Your task to perform on an android device: Open Amazon Image 0: 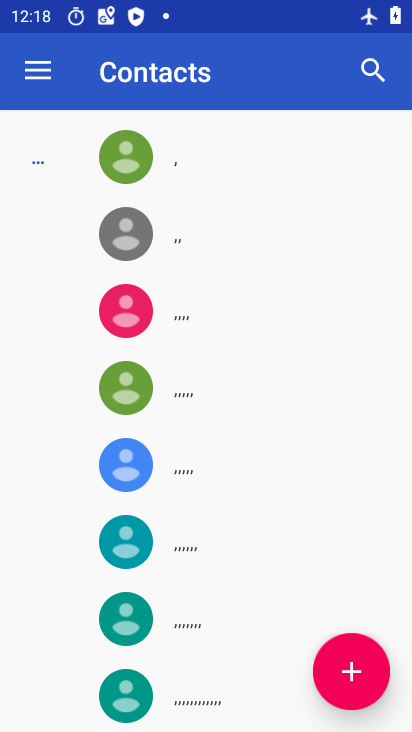
Step 0: press home button
Your task to perform on an android device: Open Amazon Image 1: 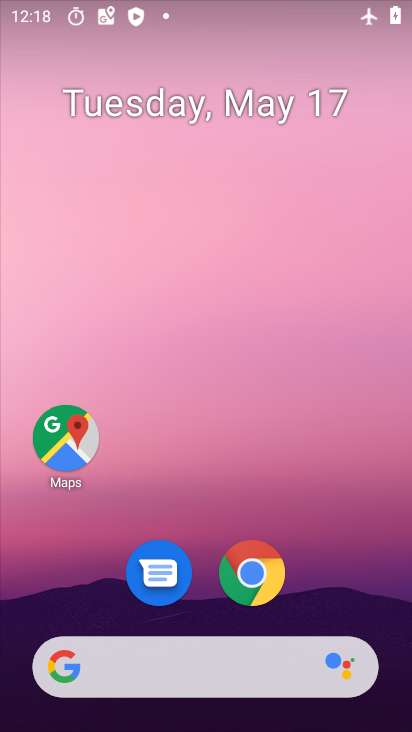
Step 1: click (233, 586)
Your task to perform on an android device: Open Amazon Image 2: 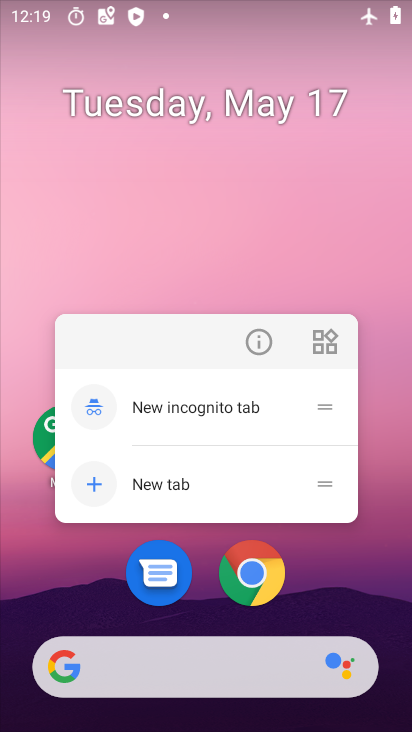
Step 2: click (279, 574)
Your task to perform on an android device: Open Amazon Image 3: 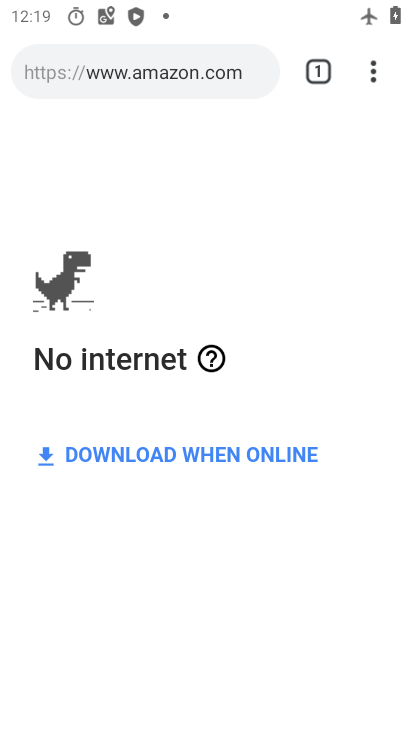
Step 3: task complete